Your task to perform on an android device: Show me the alarms in the clock app Image 0: 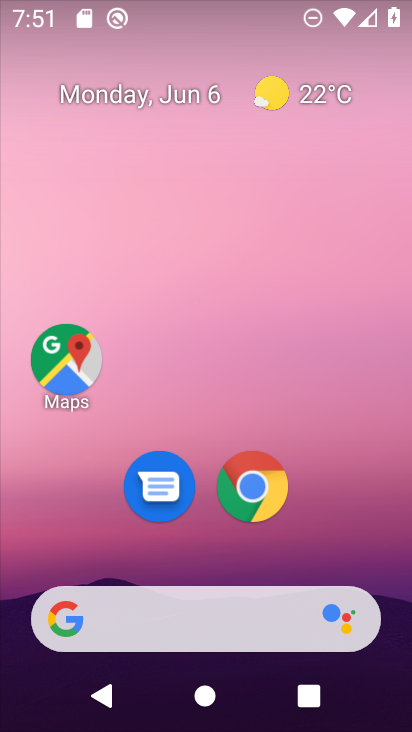
Step 0: drag from (401, 611) to (288, 37)
Your task to perform on an android device: Show me the alarms in the clock app Image 1: 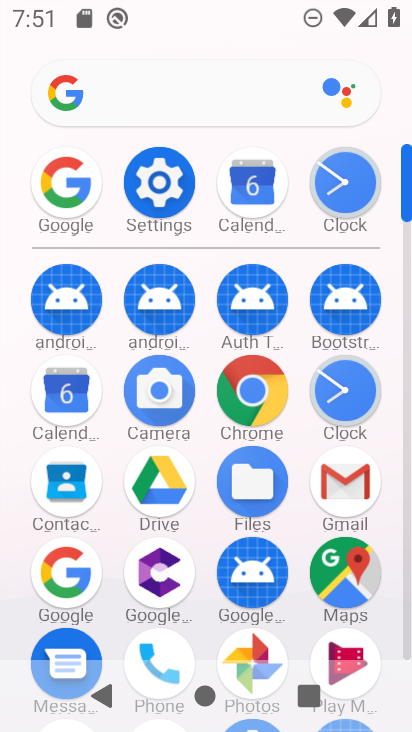
Step 1: click (342, 377)
Your task to perform on an android device: Show me the alarms in the clock app Image 2: 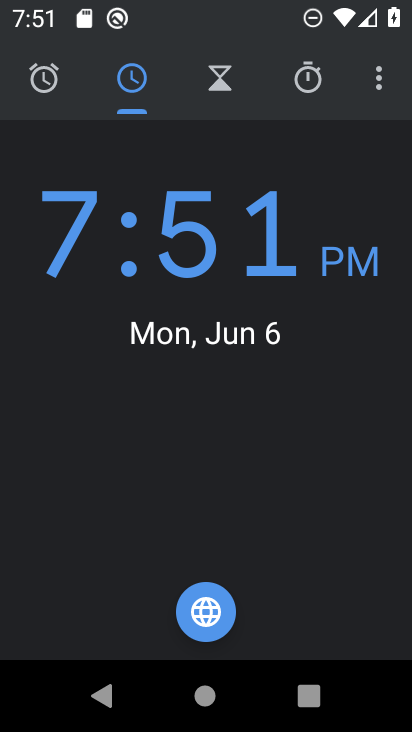
Step 2: click (48, 70)
Your task to perform on an android device: Show me the alarms in the clock app Image 3: 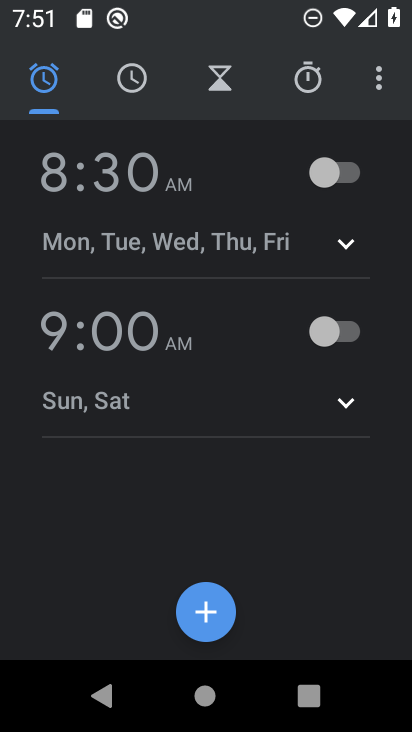
Step 3: task complete